Your task to perform on an android device: turn on data saver in the chrome app Image 0: 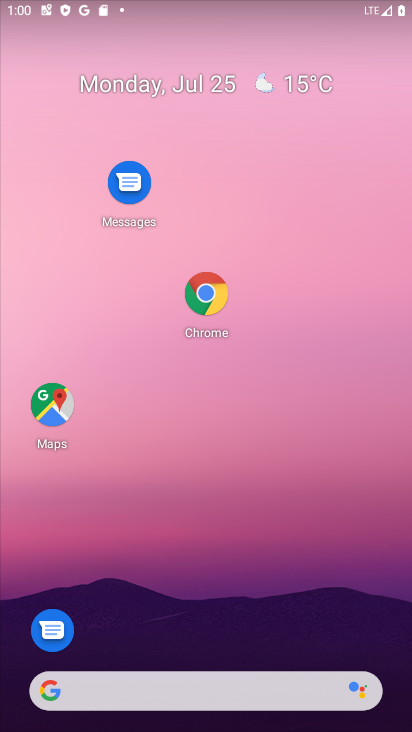
Step 0: click (237, 107)
Your task to perform on an android device: turn on data saver in the chrome app Image 1: 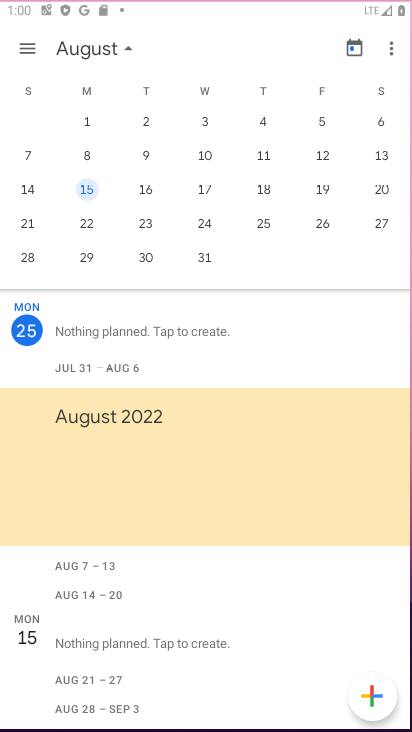
Step 1: drag from (259, 629) to (216, 262)
Your task to perform on an android device: turn on data saver in the chrome app Image 2: 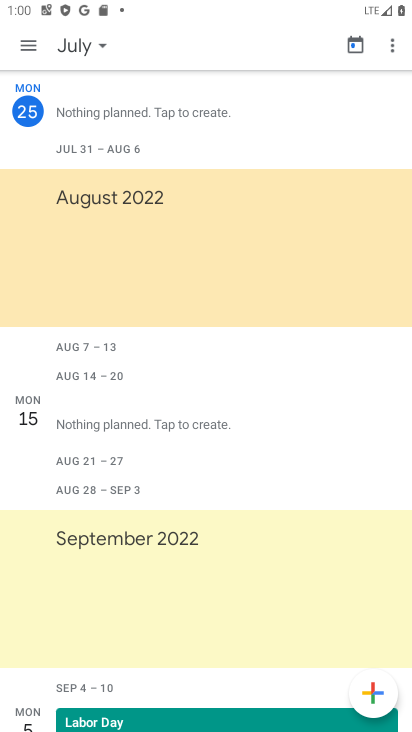
Step 2: press home button
Your task to perform on an android device: turn on data saver in the chrome app Image 3: 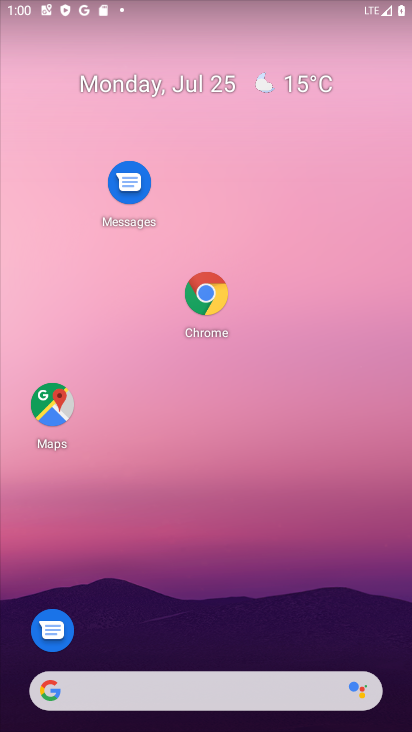
Step 3: drag from (254, 629) to (251, 72)
Your task to perform on an android device: turn on data saver in the chrome app Image 4: 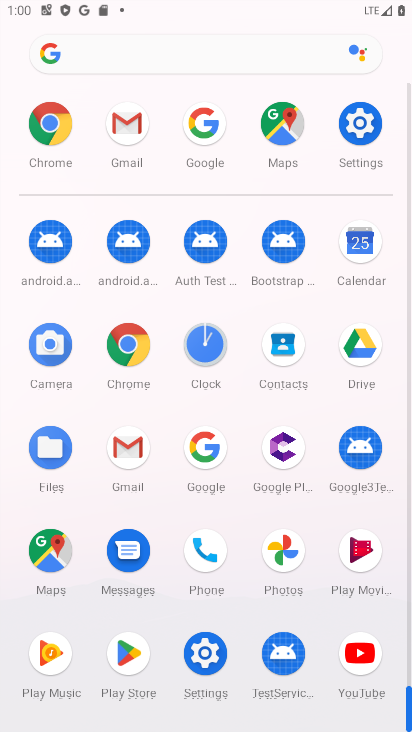
Step 4: click (130, 329)
Your task to perform on an android device: turn on data saver in the chrome app Image 5: 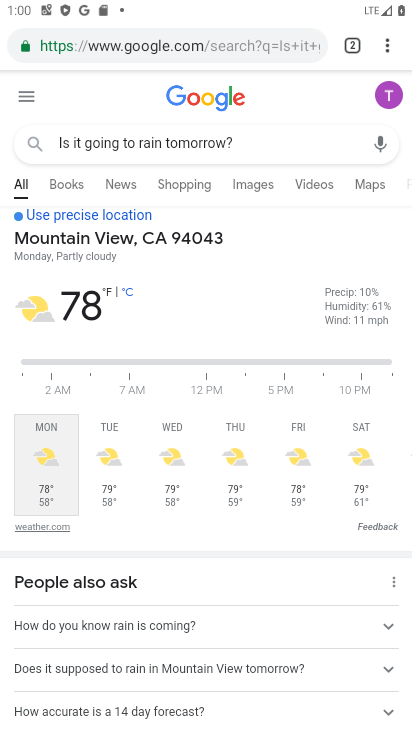
Step 5: drag from (385, 42) to (226, 560)
Your task to perform on an android device: turn on data saver in the chrome app Image 6: 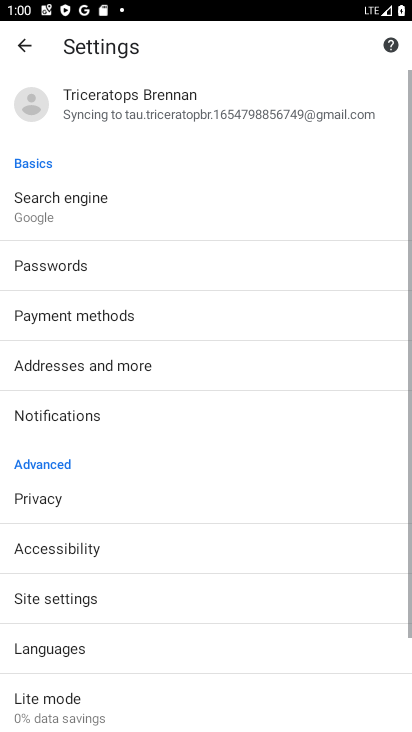
Step 6: drag from (181, 629) to (192, 246)
Your task to perform on an android device: turn on data saver in the chrome app Image 7: 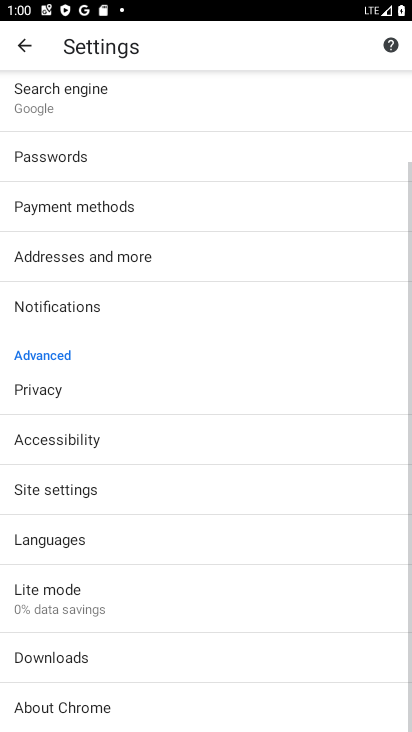
Step 7: click (67, 601)
Your task to perform on an android device: turn on data saver in the chrome app Image 8: 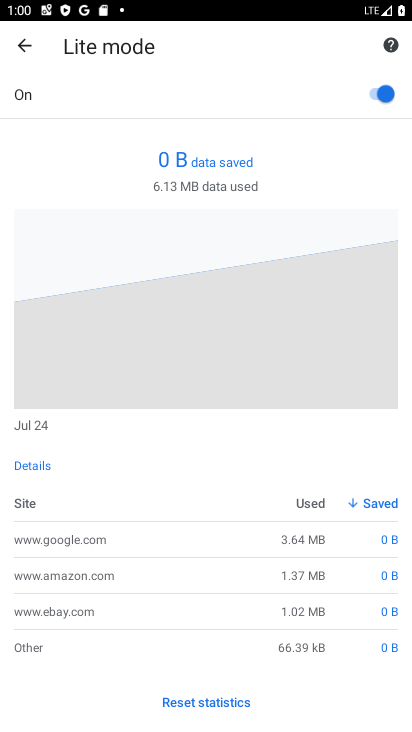
Step 8: task complete